Your task to perform on an android device: Empty the shopping cart on bestbuy. Add razer blade to the cart on bestbuy, then select checkout. Image 0: 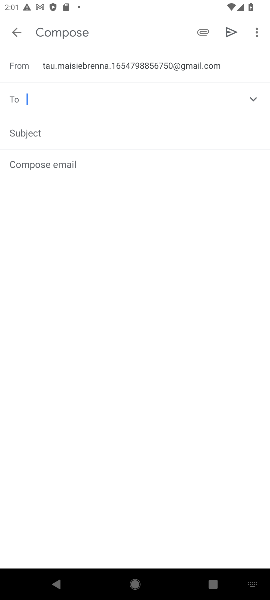
Step 0: press home button
Your task to perform on an android device: Empty the shopping cart on bestbuy. Add razer blade to the cart on bestbuy, then select checkout. Image 1: 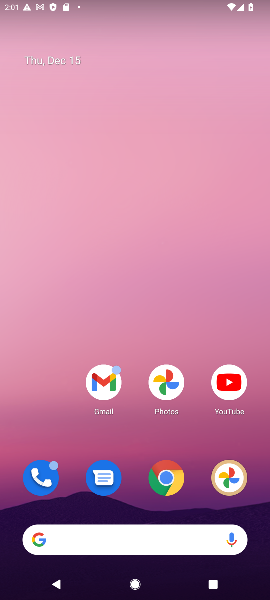
Step 1: click (167, 484)
Your task to perform on an android device: Empty the shopping cart on bestbuy. Add razer blade to the cart on bestbuy, then select checkout. Image 2: 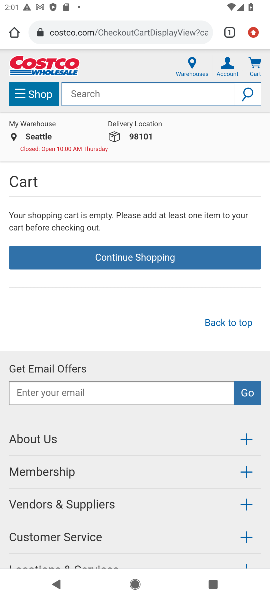
Step 2: click (90, 31)
Your task to perform on an android device: Empty the shopping cart on bestbuy. Add razer blade to the cart on bestbuy, then select checkout. Image 3: 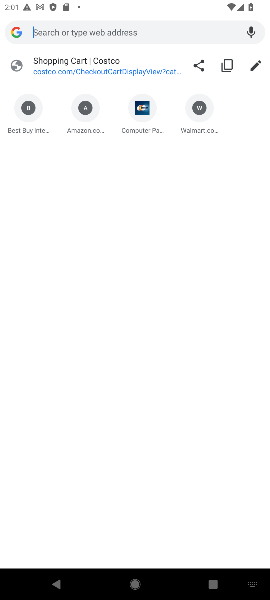
Step 3: click (32, 130)
Your task to perform on an android device: Empty the shopping cart on bestbuy. Add razer blade to the cart on bestbuy, then select checkout. Image 4: 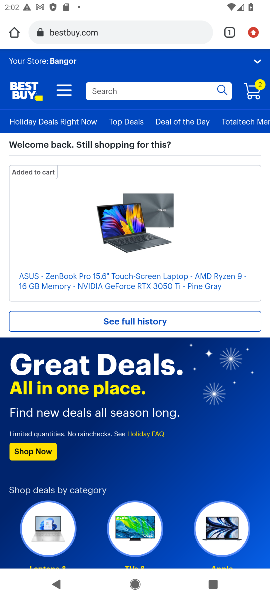
Step 4: click (255, 93)
Your task to perform on an android device: Empty the shopping cart on bestbuy. Add razer blade to the cart on bestbuy, then select checkout. Image 5: 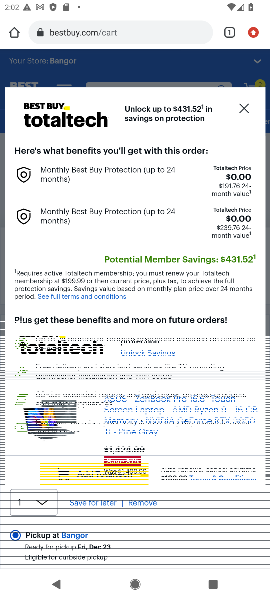
Step 5: click (242, 107)
Your task to perform on an android device: Empty the shopping cart on bestbuy. Add razer blade to the cart on bestbuy, then select checkout. Image 6: 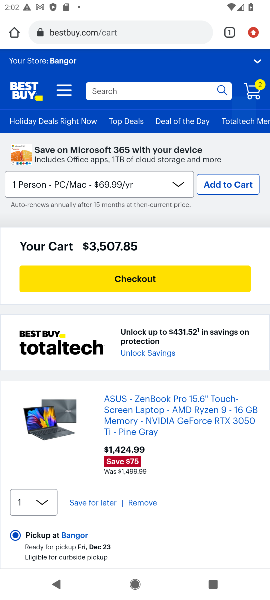
Step 6: click (135, 503)
Your task to perform on an android device: Empty the shopping cart on bestbuy. Add razer blade to the cart on bestbuy, then select checkout. Image 7: 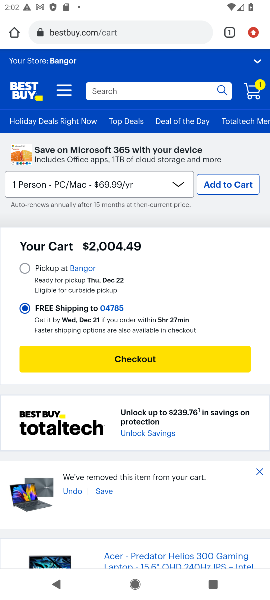
Step 7: drag from (135, 503) to (146, 307)
Your task to perform on an android device: Empty the shopping cart on bestbuy. Add razer blade to the cart on bestbuy, then select checkout. Image 8: 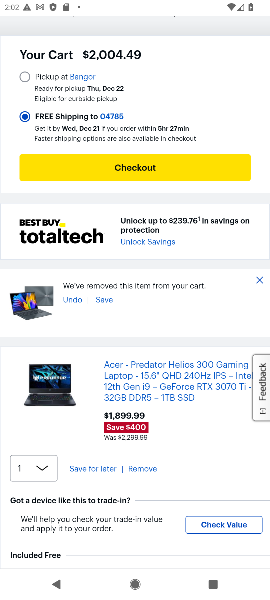
Step 8: click (141, 468)
Your task to perform on an android device: Empty the shopping cart on bestbuy. Add razer blade to the cart on bestbuy, then select checkout. Image 9: 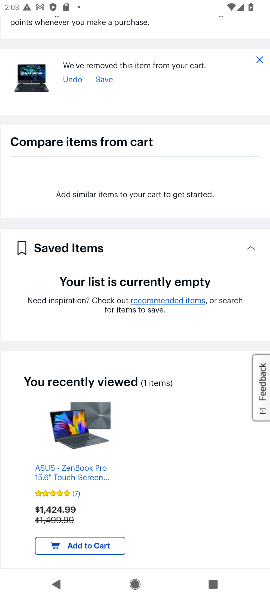
Step 9: drag from (199, 144) to (207, 376)
Your task to perform on an android device: Empty the shopping cart on bestbuy. Add razer blade to the cart on bestbuy, then select checkout. Image 10: 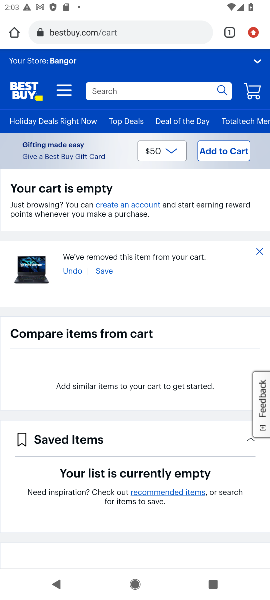
Step 10: click (107, 92)
Your task to perform on an android device: Empty the shopping cart on bestbuy. Add razer blade to the cart on bestbuy, then select checkout. Image 11: 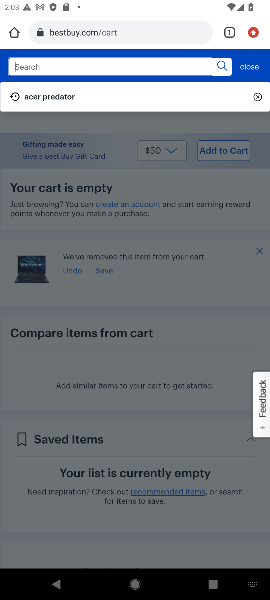
Step 11: type " razer blade"
Your task to perform on an android device: Empty the shopping cart on bestbuy. Add razer blade to the cart on bestbuy, then select checkout. Image 12: 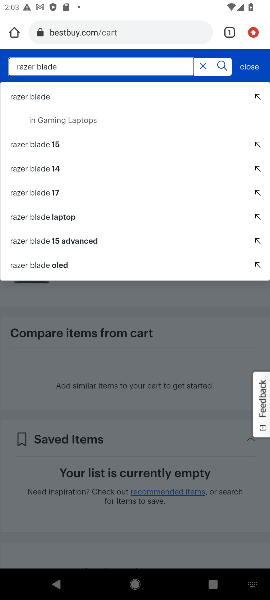
Step 12: click (37, 99)
Your task to perform on an android device: Empty the shopping cart on bestbuy. Add razer blade to the cart on bestbuy, then select checkout. Image 13: 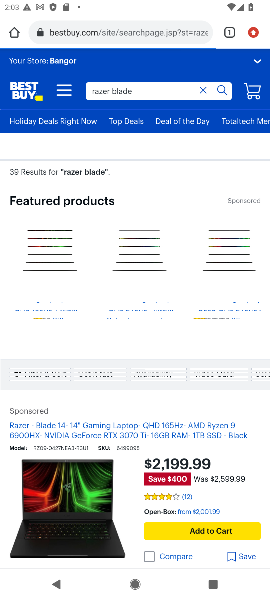
Step 13: drag from (64, 461) to (57, 316)
Your task to perform on an android device: Empty the shopping cart on bestbuy. Add razer blade to the cart on bestbuy, then select checkout. Image 14: 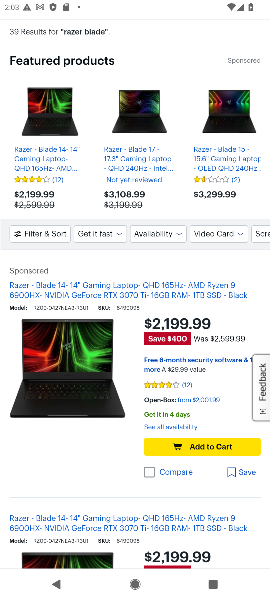
Step 14: click (204, 442)
Your task to perform on an android device: Empty the shopping cart on bestbuy. Add razer blade to the cart on bestbuy, then select checkout. Image 15: 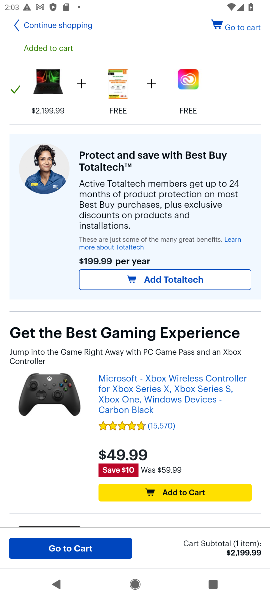
Step 15: click (245, 26)
Your task to perform on an android device: Empty the shopping cart on bestbuy. Add razer blade to the cart on bestbuy, then select checkout. Image 16: 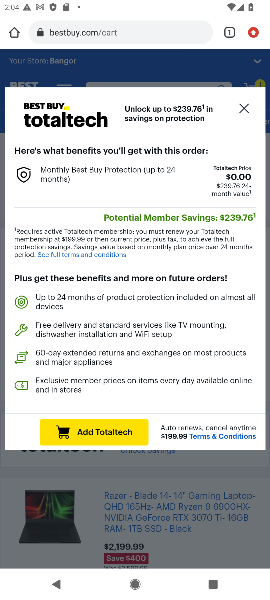
Step 16: click (133, 372)
Your task to perform on an android device: Empty the shopping cart on bestbuy. Add razer blade to the cart on bestbuy, then select checkout. Image 17: 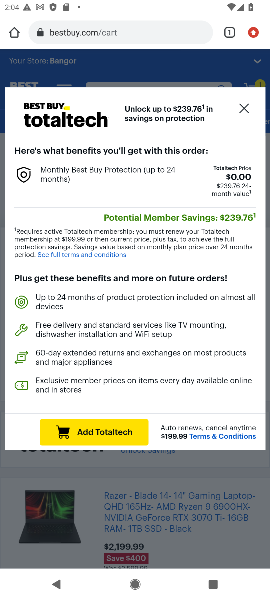
Step 17: click (240, 106)
Your task to perform on an android device: Empty the shopping cart on bestbuy. Add razer blade to the cart on bestbuy, then select checkout. Image 18: 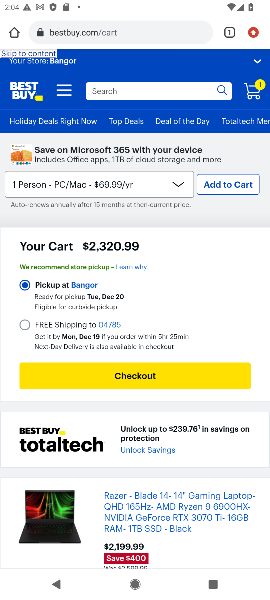
Step 18: click (106, 376)
Your task to perform on an android device: Empty the shopping cart on bestbuy. Add razer blade to the cart on bestbuy, then select checkout. Image 19: 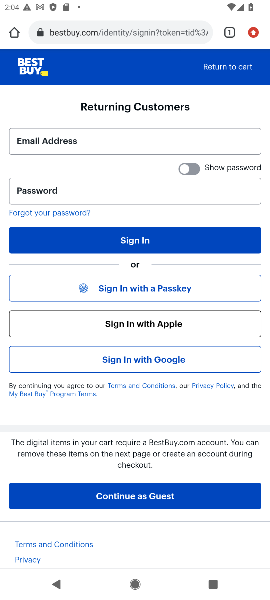
Step 19: task complete